Your task to perform on an android device: turn vacation reply on in the gmail app Image 0: 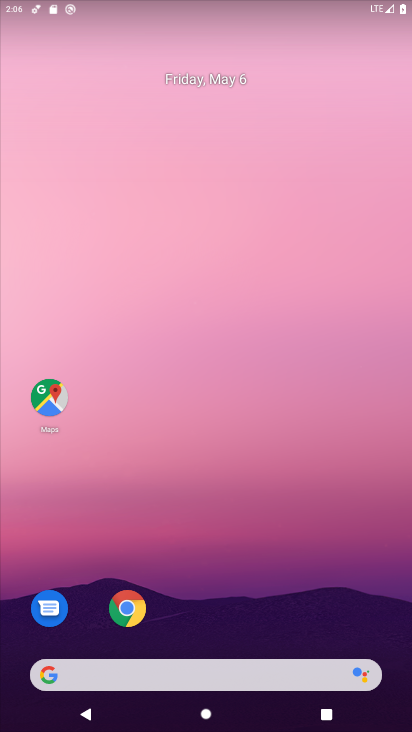
Step 0: drag from (216, 642) to (207, 245)
Your task to perform on an android device: turn vacation reply on in the gmail app Image 1: 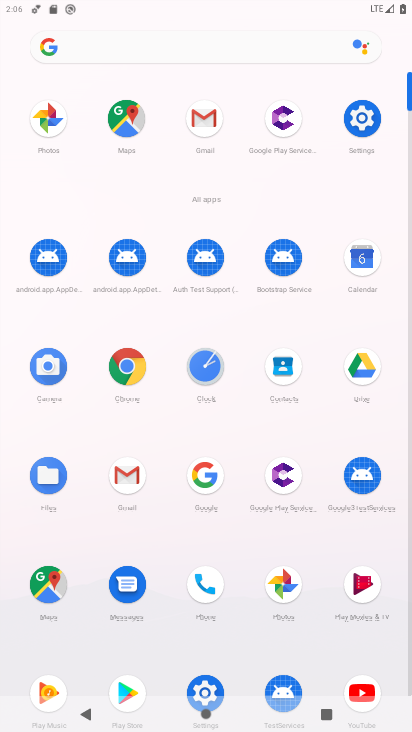
Step 1: click (133, 493)
Your task to perform on an android device: turn vacation reply on in the gmail app Image 2: 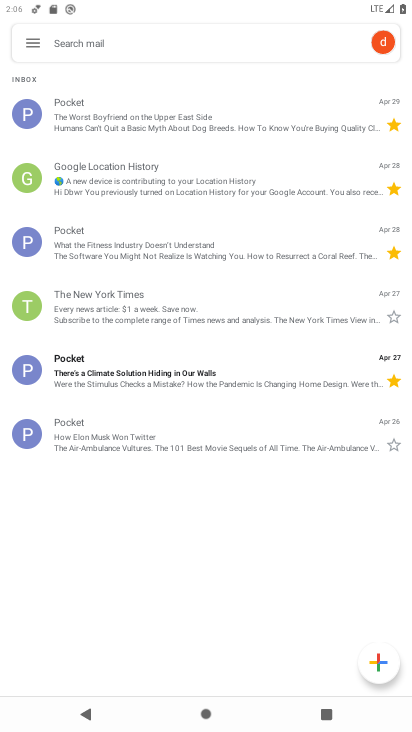
Step 2: click (33, 40)
Your task to perform on an android device: turn vacation reply on in the gmail app Image 3: 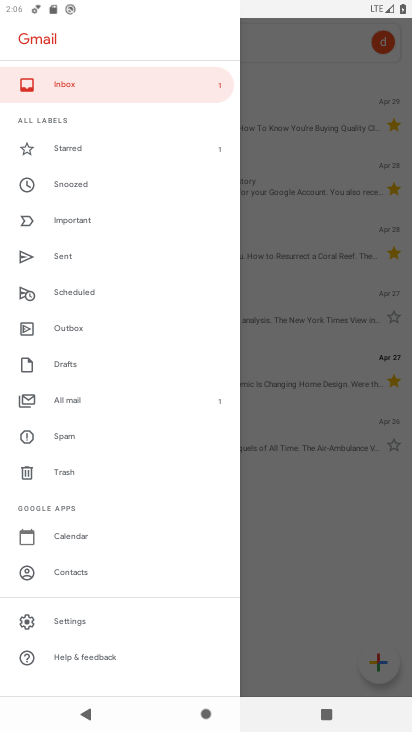
Step 3: click (87, 628)
Your task to perform on an android device: turn vacation reply on in the gmail app Image 4: 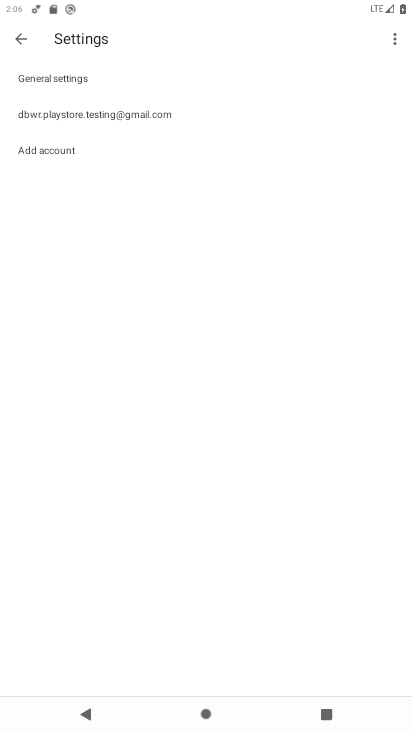
Step 4: click (89, 123)
Your task to perform on an android device: turn vacation reply on in the gmail app Image 5: 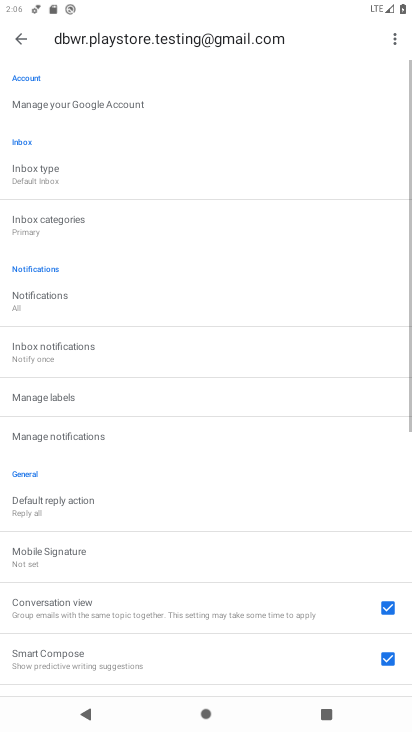
Step 5: drag from (191, 612) to (205, 280)
Your task to perform on an android device: turn vacation reply on in the gmail app Image 6: 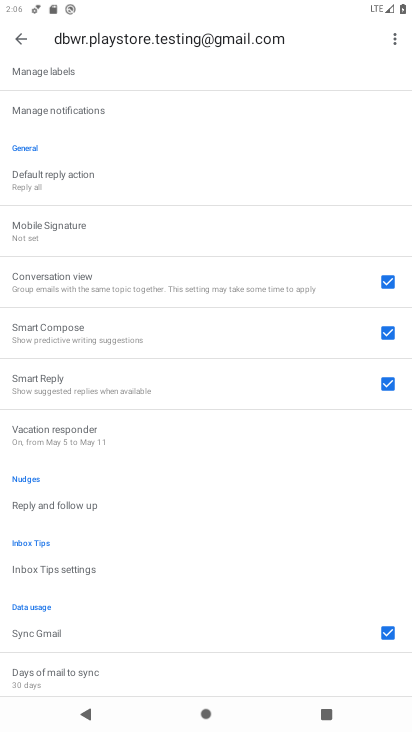
Step 6: drag from (153, 630) to (146, 324)
Your task to perform on an android device: turn vacation reply on in the gmail app Image 7: 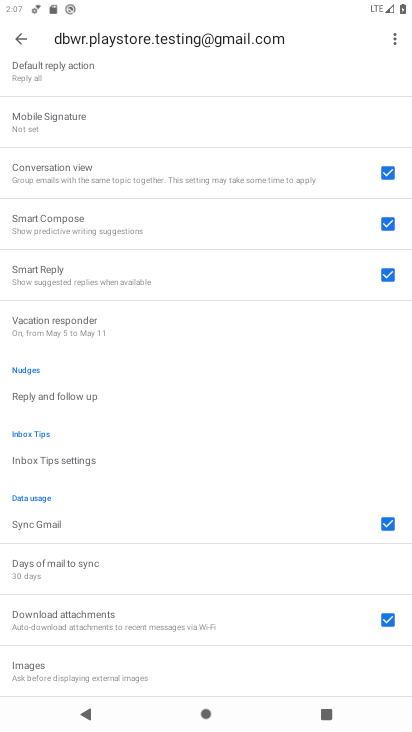
Step 7: click (69, 327)
Your task to perform on an android device: turn vacation reply on in the gmail app Image 8: 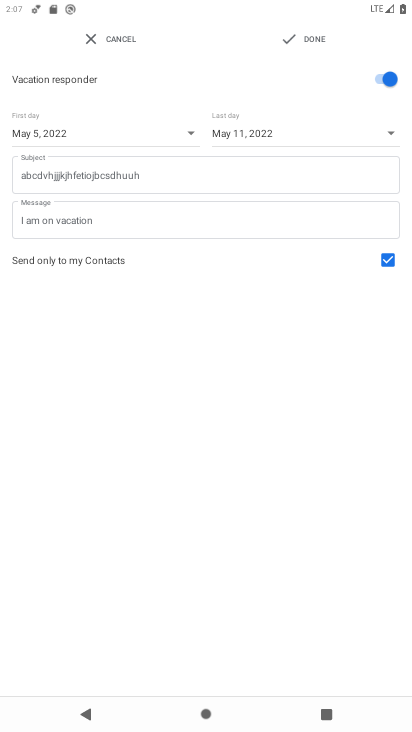
Step 8: task complete